Your task to perform on an android device: Is it going to rain this weekend? Image 0: 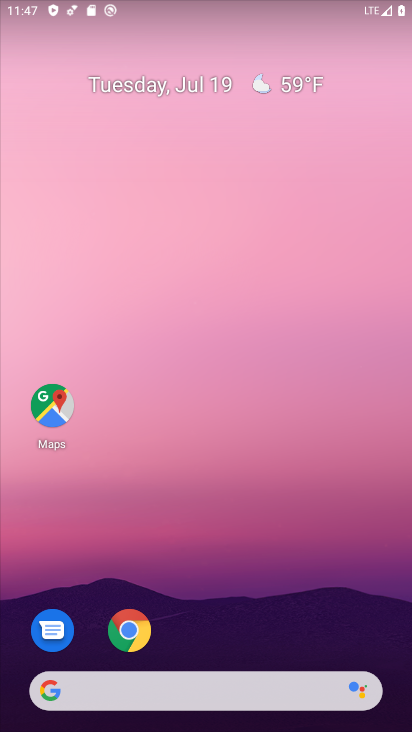
Step 0: drag from (184, 688) to (252, 137)
Your task to perform on an android device: Is it going to rain this weekend? Image 1: 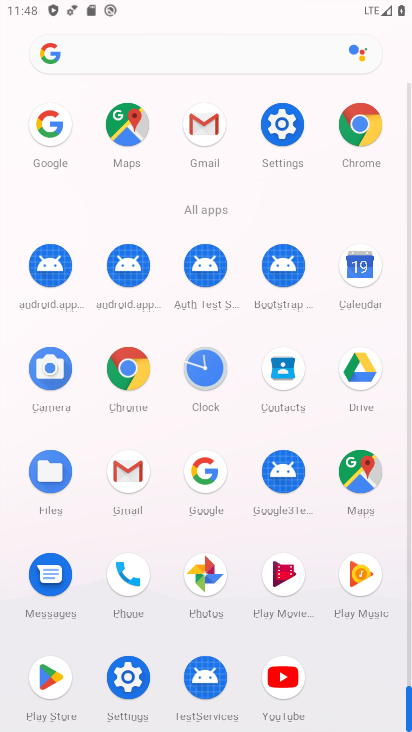
Step 1: click (191, 473)
Your task to perform on an android device: Is it going to rain this weekend? Image 2: 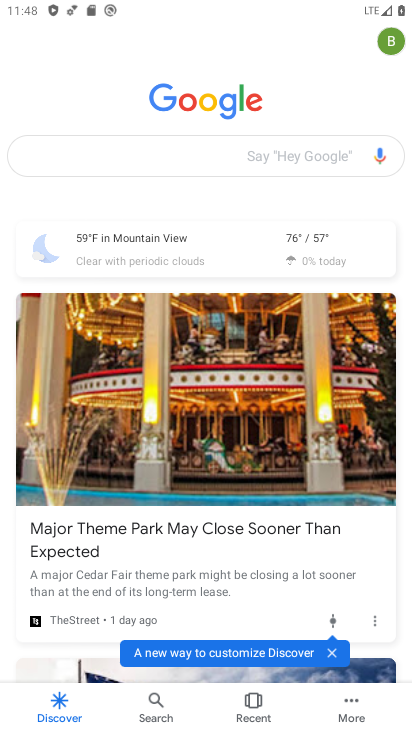
Step 2: click (144, 157)
Your task to perform on an android device: Is it going to rain this weekend? Image 3: 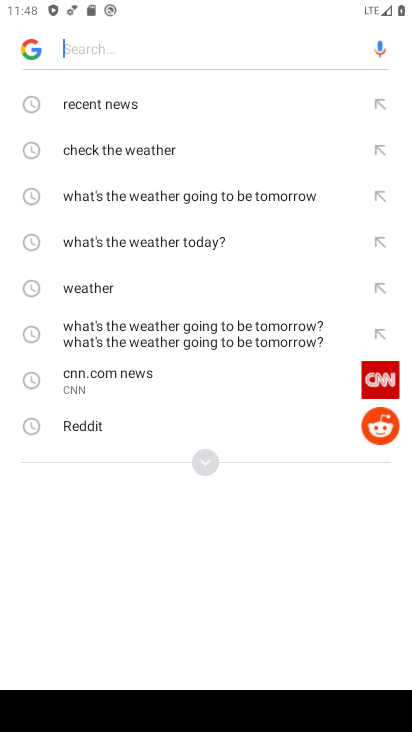
Step 3: click (89, 294)
Your task to perform on an android device: Is it going to rain this weekend? Image 4: 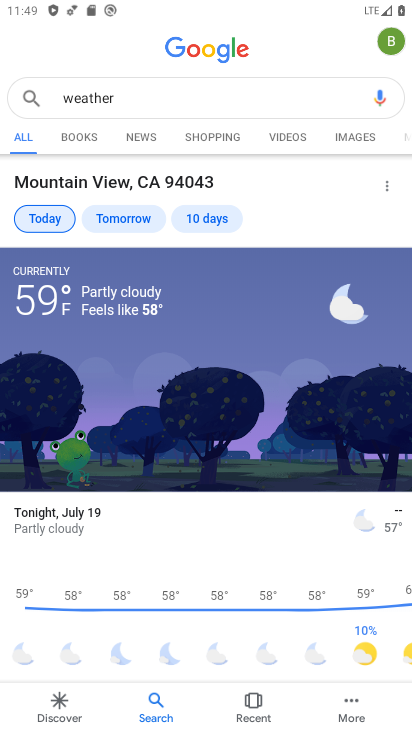
Step 4: click (214, 230)
Your task to perform on an android device: Is it going to rain this weekend? Image 5: 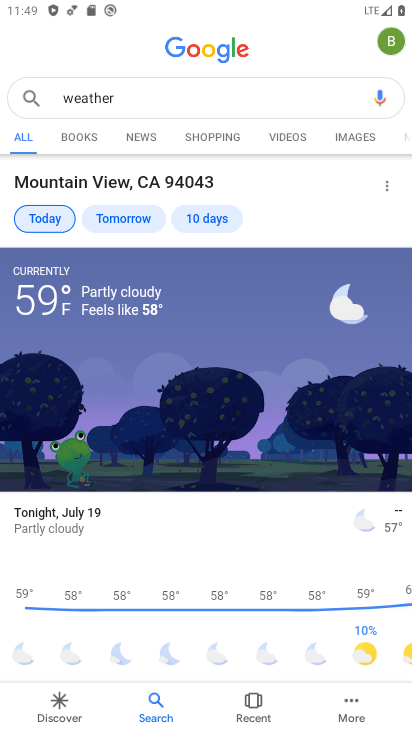
Step 5: click (208, 226)
Your task to perform on an android device: Is it going to rain this weekend? Image 6: 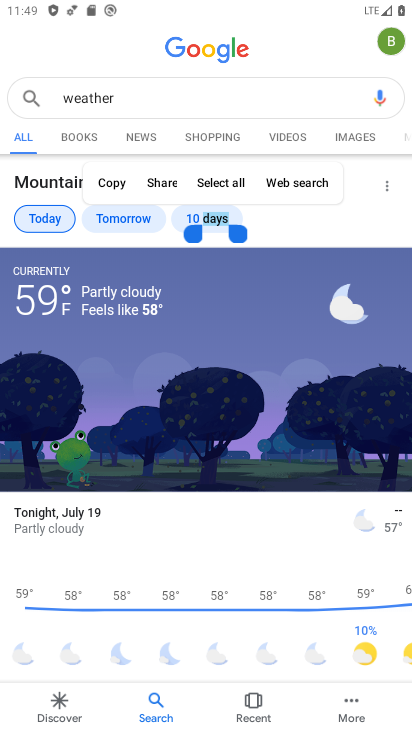
Step 6: click (272, 239)
Your task to perform on an android device: Is it going to rain this weekend? Image 7: 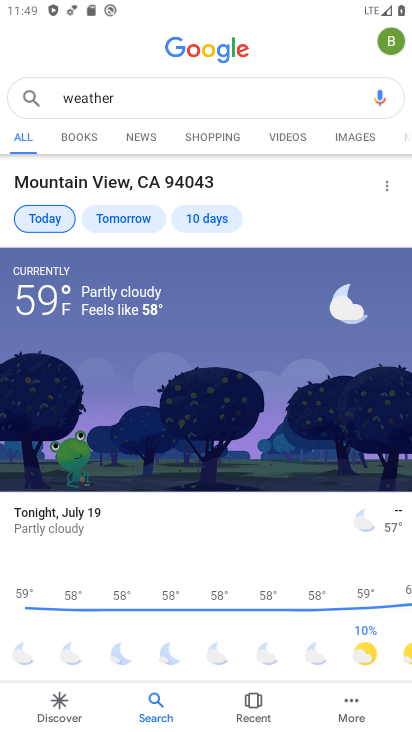
Step 7: click (203, 219)
Your task to perform on an android device: Is it going to rain this weekend? Image 8: 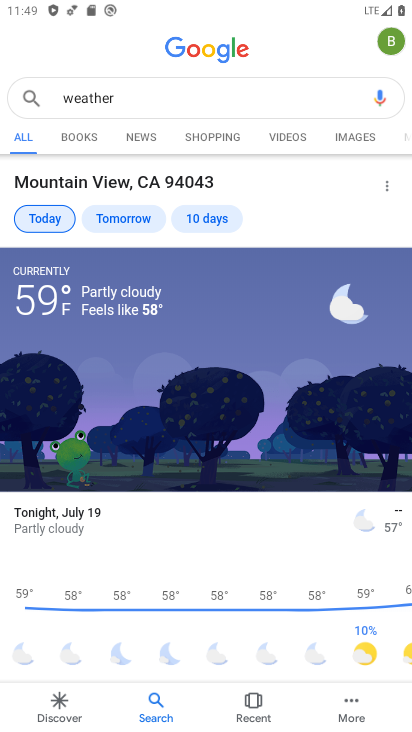
Step 8: click (203, 219)
Your task to perform on an android device: Is it going to rain this weekend? Image 9: 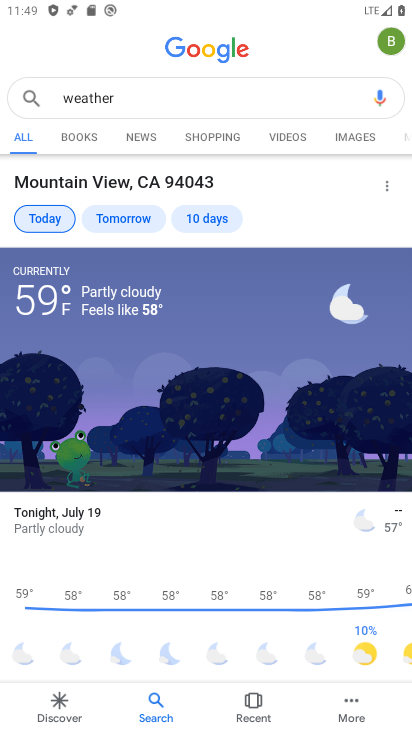
Step 9: click (203, 219)
Your task to perform on an android device: Is it going to rain this weekend? Image 10: 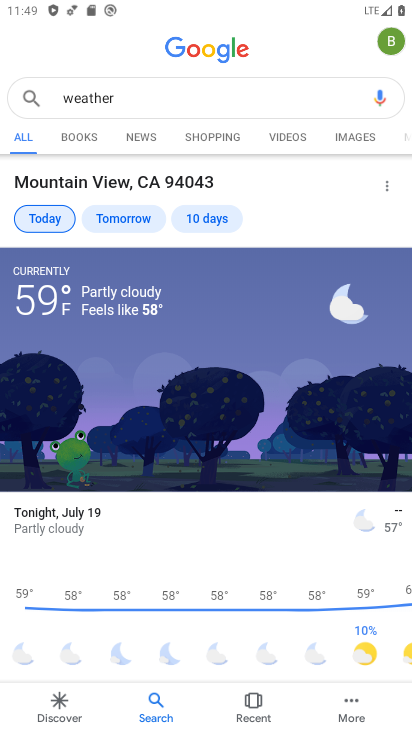
Step 10: click (223, 225)
Your task to perform on an android device: Is it going to rain this weekend? Image 11: 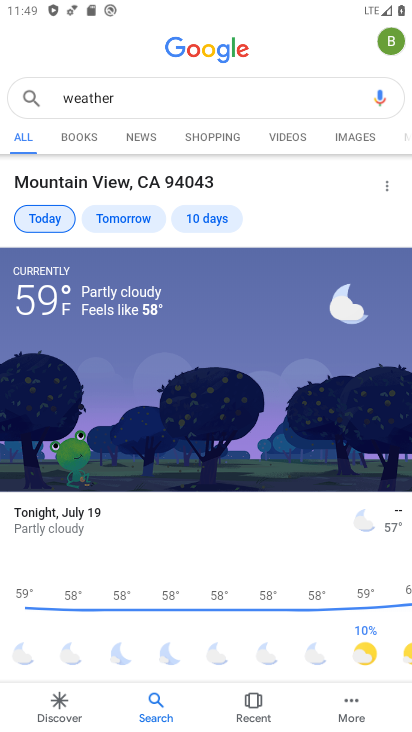
Step 11: task complete